Your task to perform on an android device: Search for vegetarian restaurants on Maps Image 0: 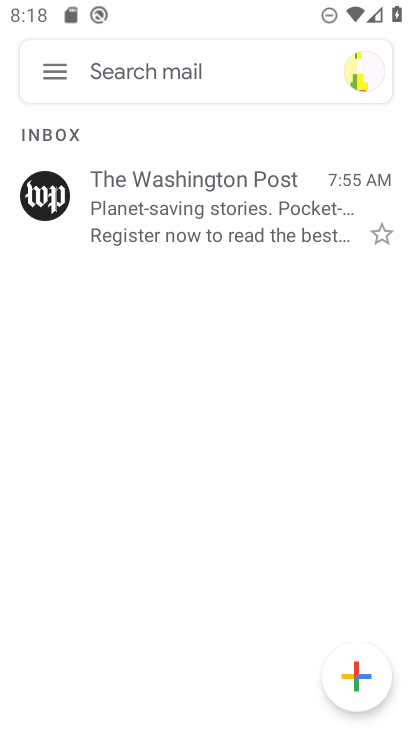
Step 0: press home button
Your task to perform on an android device: Search for vegetarian restaurants on Maps Image 1: 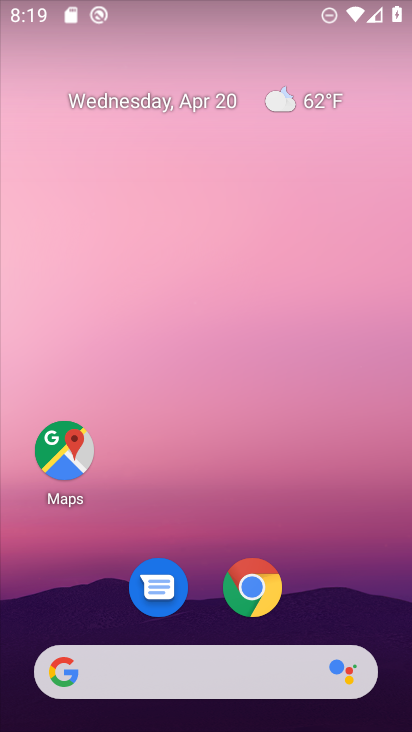
Step 1: click (84, 459)
Your task to perform on an android device: Search for vegetarian restaurants on Maps Image 2: 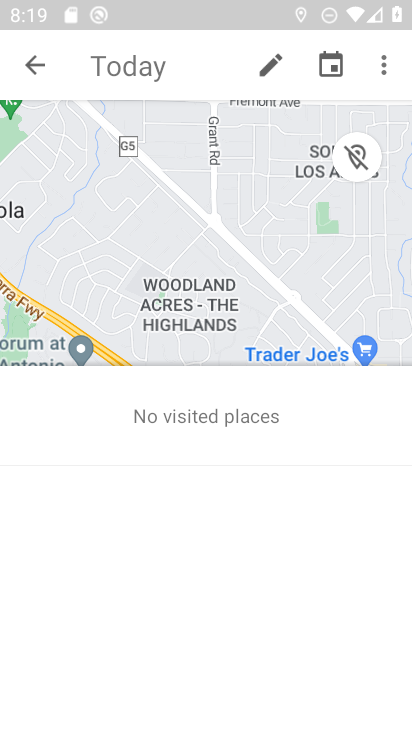
Step 2: click (25, 61)
Your task to perform on an android device: Search for vegetarian restaurants on Maps Image 3: 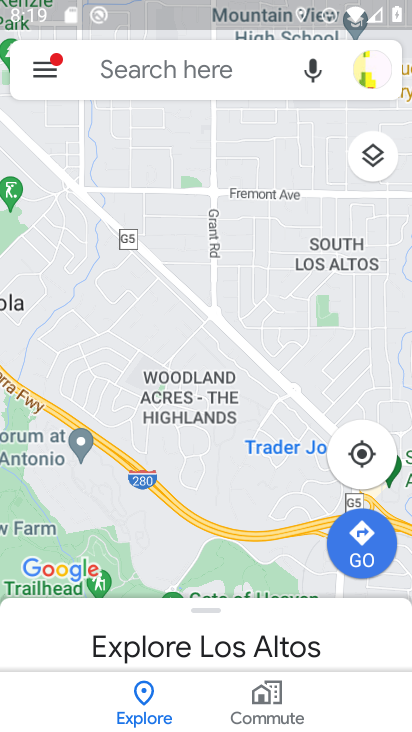
Step 3: click (176, 84)
Your task to perform on an android device: Search for vegetarian restaurants on Maps Image 4: 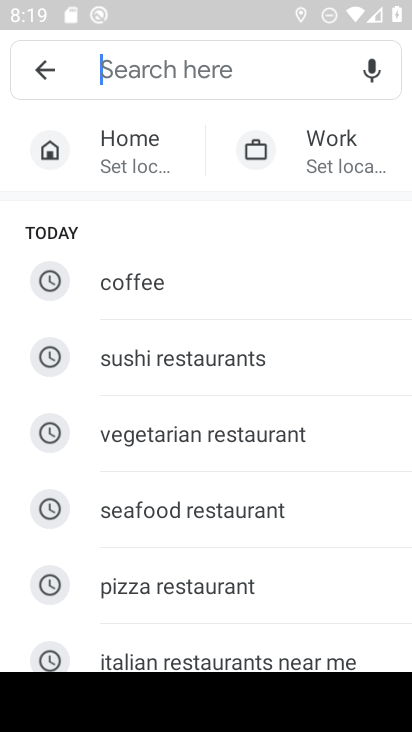
Step 4: click (266, 426)
Your task to perform on an android device: Search for vegetarian restaurants on Maps Image 5: 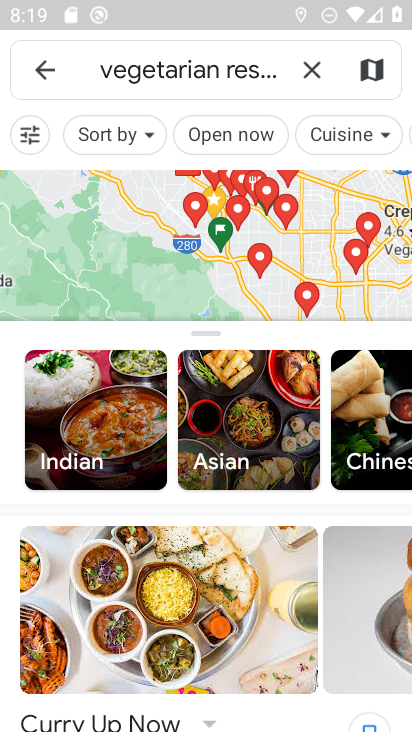
Step 5: task complete